Your task to perform on an android device: Do I have any events today? Image 0: 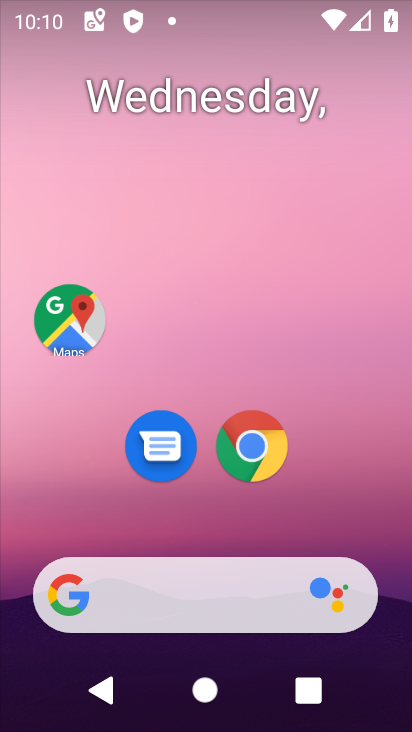
Step 0: drag from (306, 518) to (248, 8)
Your task to perform on an android device: Do I have any events today? Image 1: 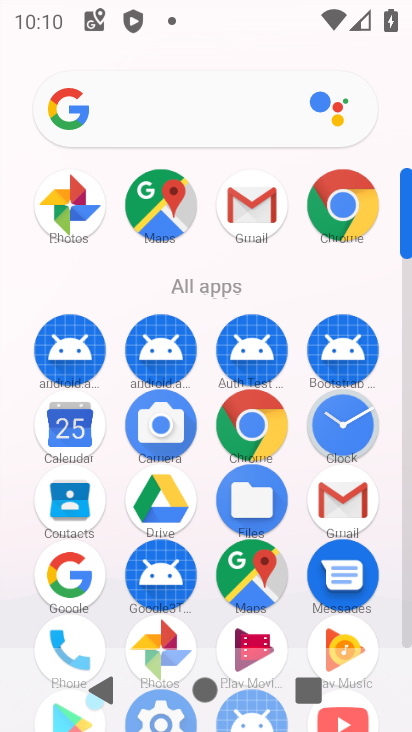
Step 1: click (73, 434)
Your task to perform on an android device: Do I have any events today? Image 2: 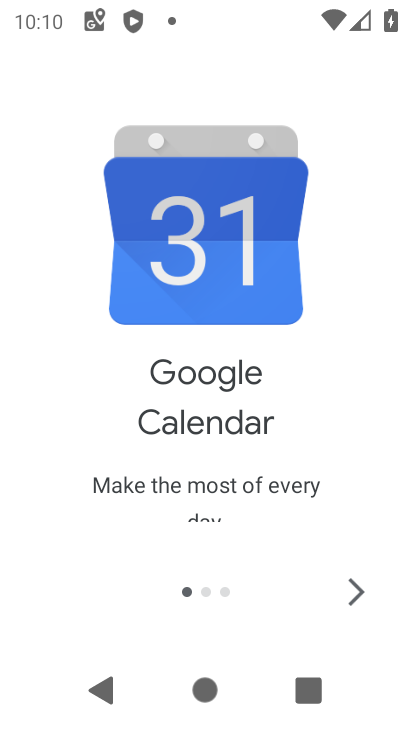
Step 2: click (352, 583)
Your task to perform on an android device: Do I have any events today? Image 3: 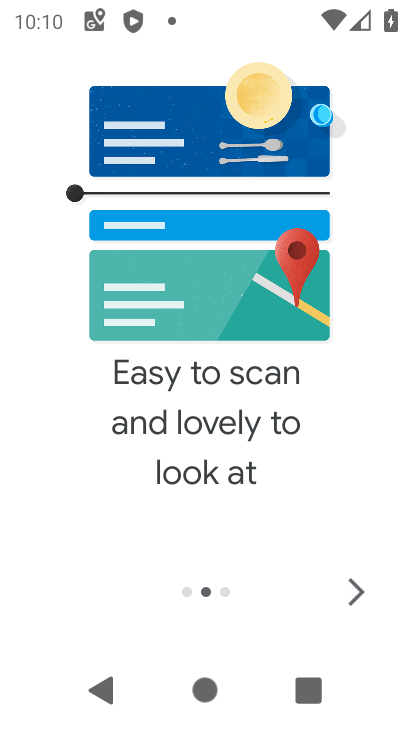
Step 3: click (364, 610)
Your task to perform on an android device: Do I have any events today? Image 4: 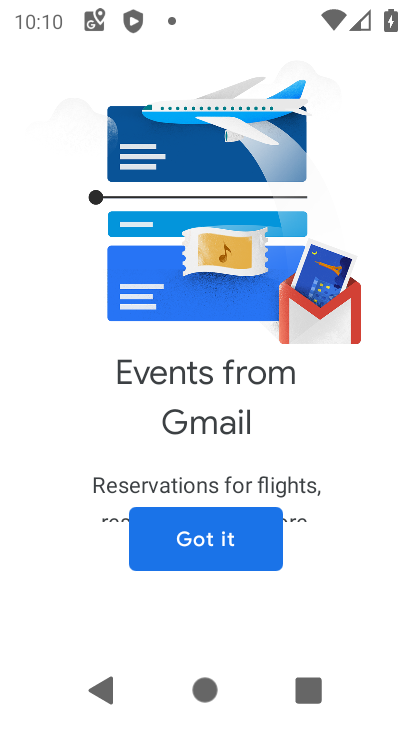
Step 4: click (178, 555)
Your task to perform on an android device: Do I have any events today? Image 5: 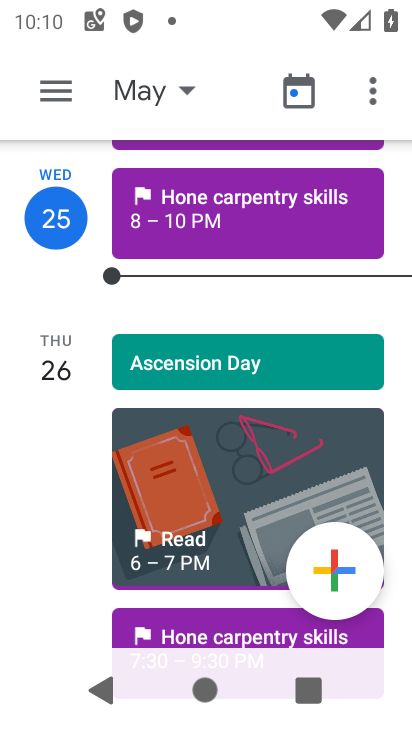
Step 5: task complete